Your task to perform on an android device: change timer sound Image 0: 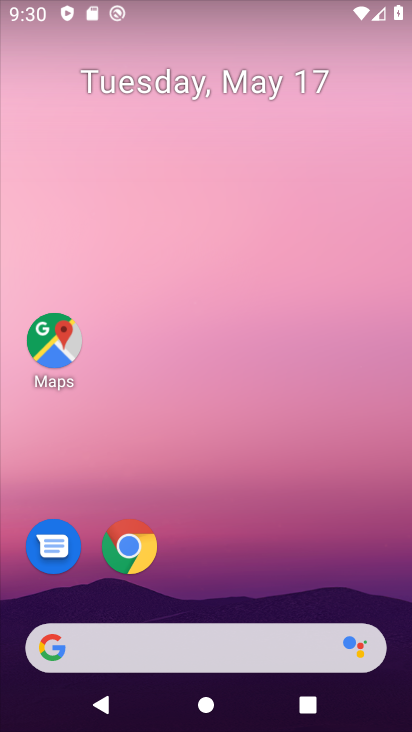
Step 0: drag from (298, 303) to (284, 106)
Your task to perform on an android device: change timer sound Image 1: 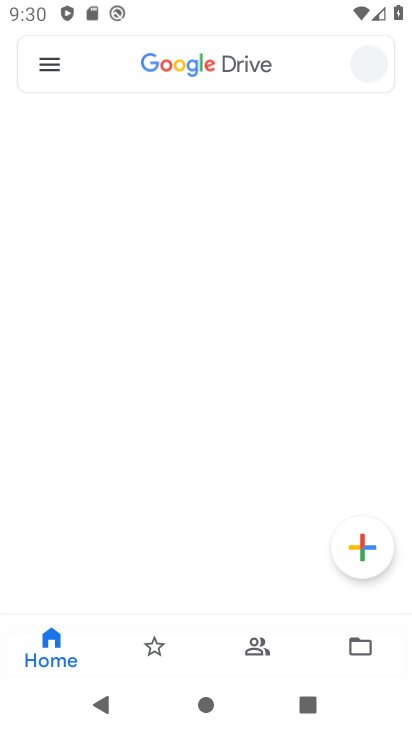
Step 1: drag from (267, 170) to (273, 111)
Your task to perform on an android device: change timer sound Image 2: 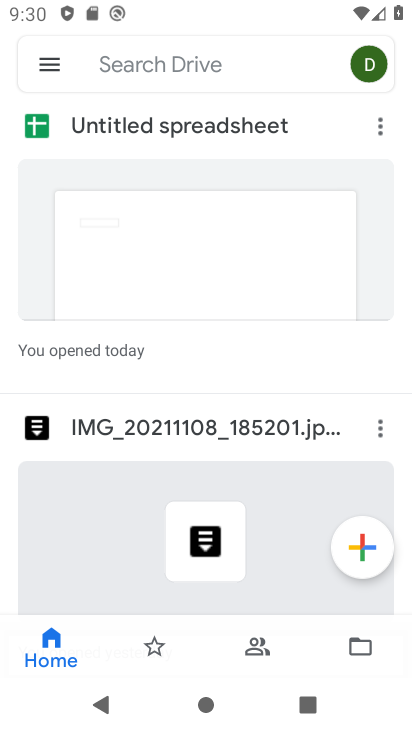
Step 2: press home button
Your task to perform on an android device: change timer sound Image 3: 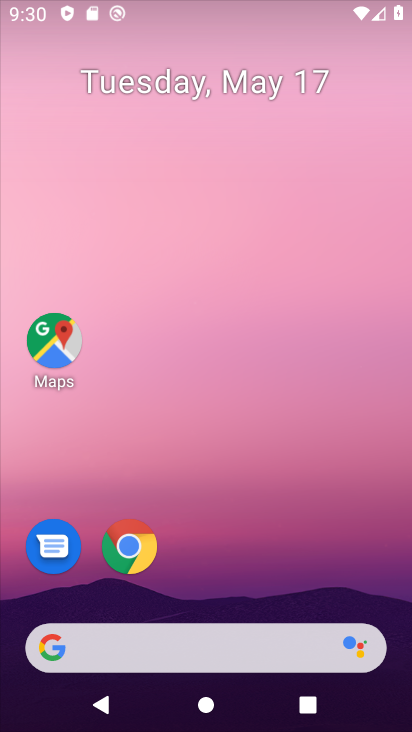
Step 3: drag from (254, 461) to (259, 240)
Your task to perform on an android device: change timer sound Image 4: 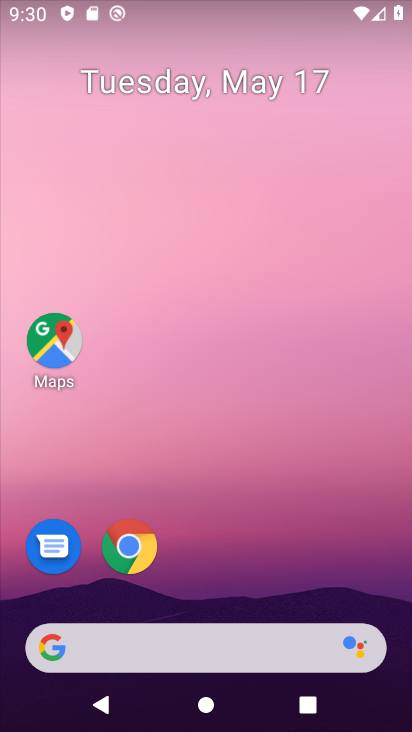
Step 4: drag from (260, 446) to (294, 208)
Your task to perform on an android device: change timer sound Image 5: 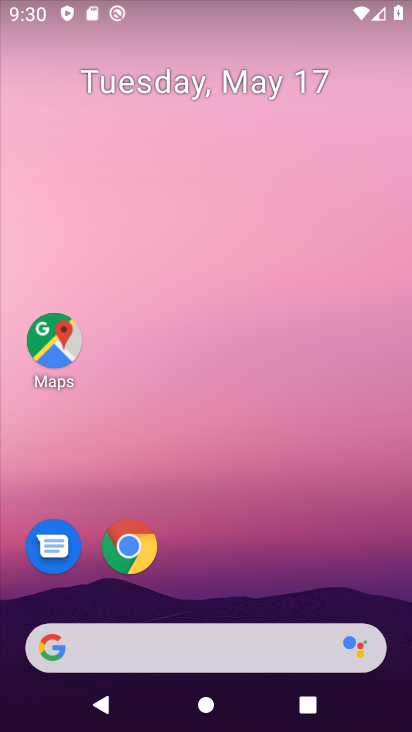
Step 5: drag from (262, 362) to (342, 86)
Your task to perform on an android device: change timer sound Image 6: 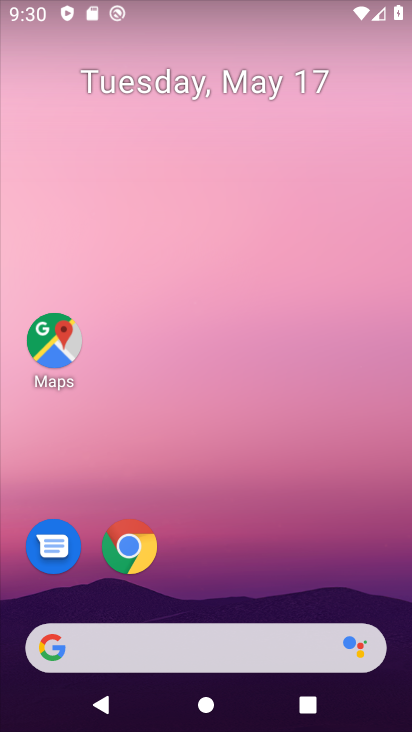
Step 6: drag from (273, 461) to (294, 174)
Your task to perform on an android device: change timer sound Image 7: 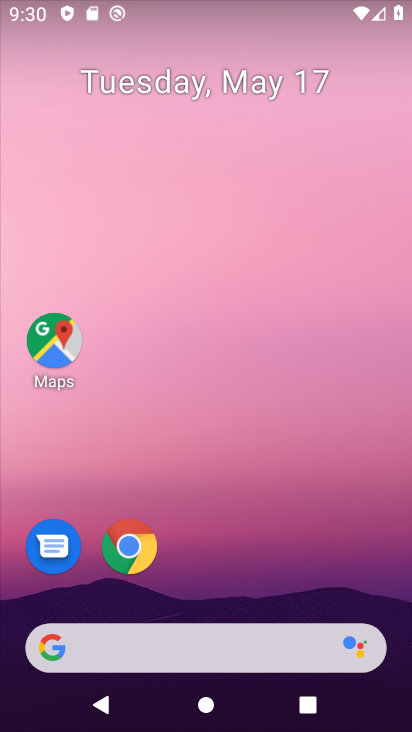
Step 7: drag from (275, 508) to (302, 137)
Your task to perform on an android device: change timer sound Image 8: 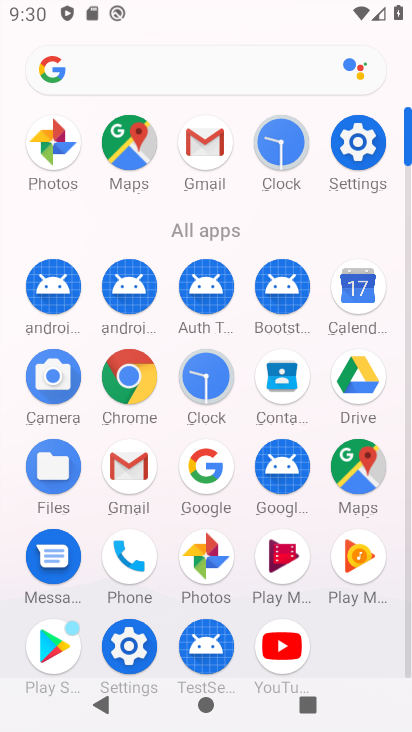
Step 8: click (205, 382)
Your task to perform on an android device: change timer sound Image 9: 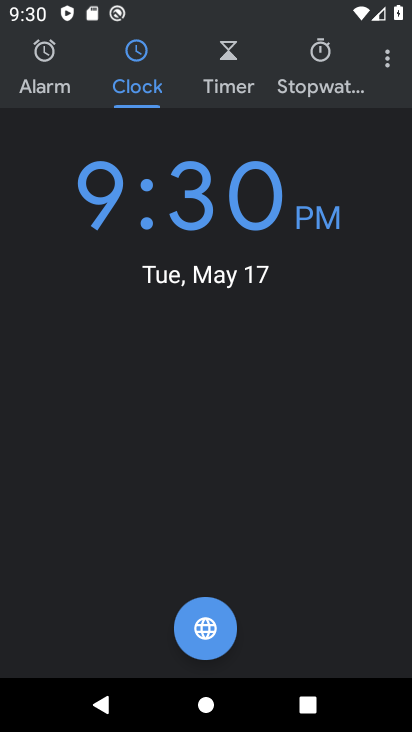
Step 9: click (376, 67)
Your task to perform on an android device: change timer sound Image 10: 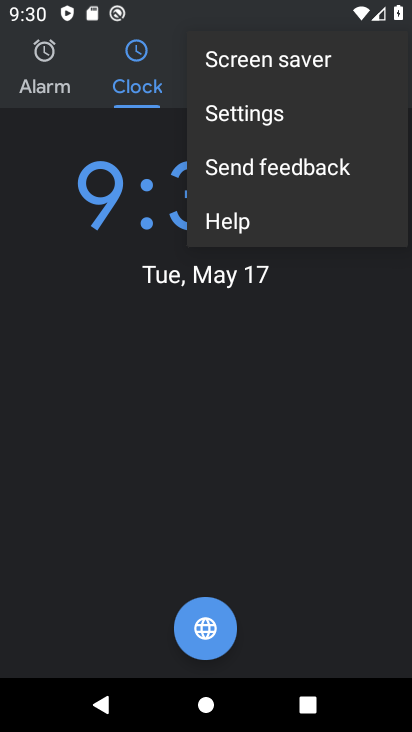
Step 10: click (302, 118)
Your task to perform on an android device: change timer sound Image 11: 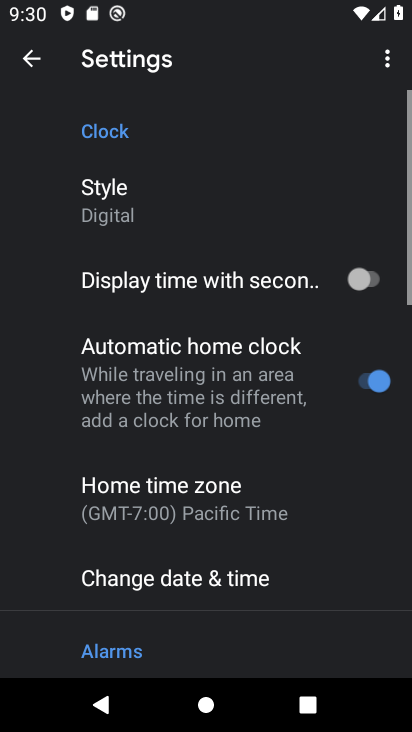
Step 11: drag from (222, 519) to (294, 73)
Your task to perform on an android device: change timer sound Image 12: 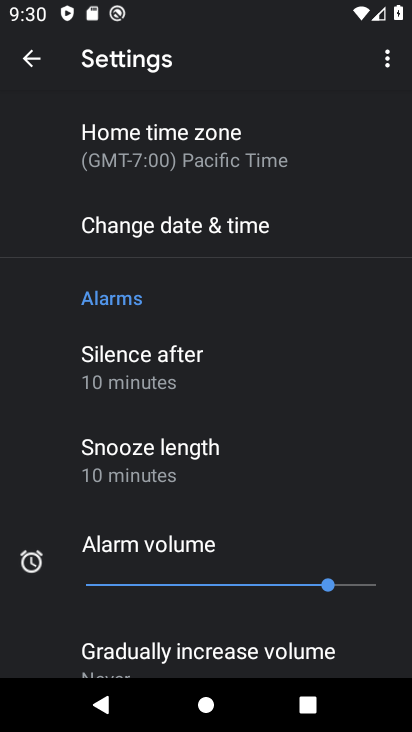
Step 12: drag from (217, 533) to (282, 158)
Your task to perform on an android device: change timer sound Image 13: 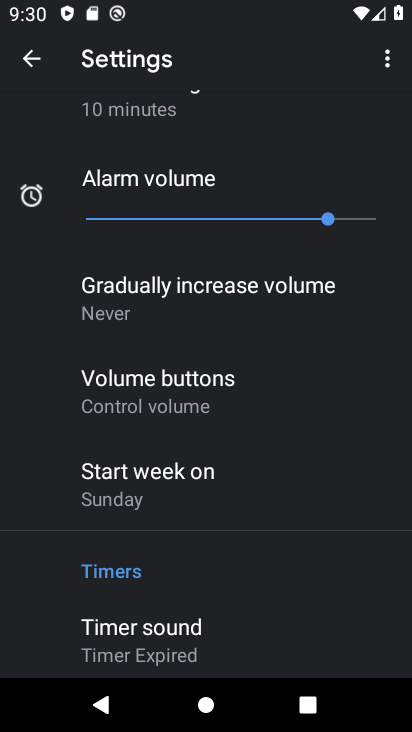
Step 13: drag from (183, 599) to (235, 414)
Your task to perform on an android device: change timer sound Image 14: 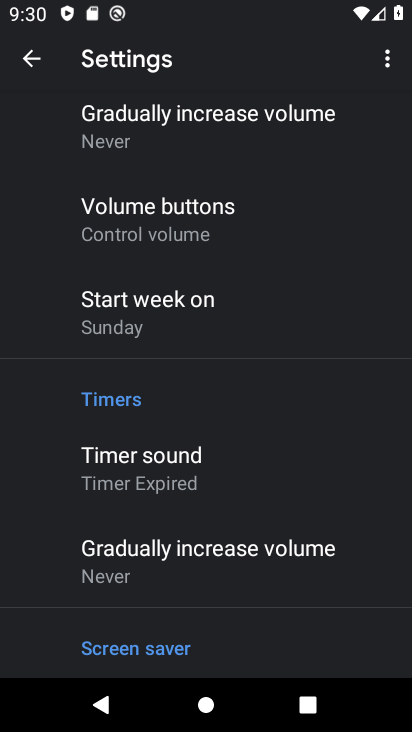
Step 14: click (145, 476)
Your task to perform on an android device: change timer sound Image 15: 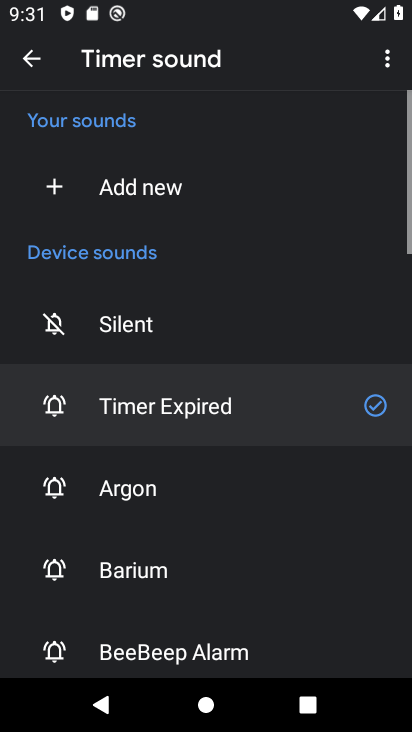
Step 15: drag from (177, 569) to (243, 291)
Your task to perform on an android device: change timer sound Image 16: 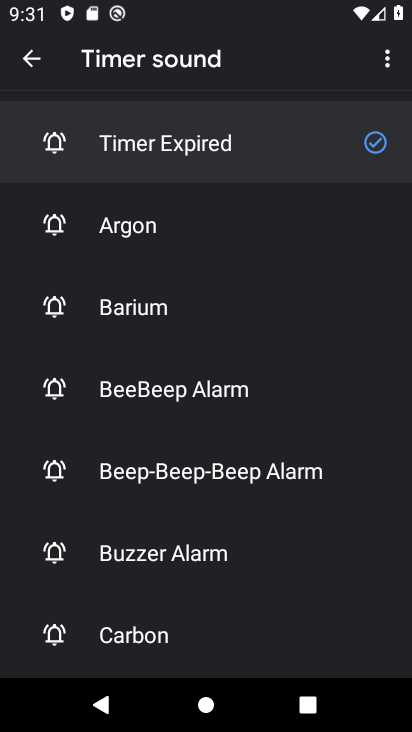
Step 16: click (177, 549)
Your task to perform on an android device: change timer sound Image 17: 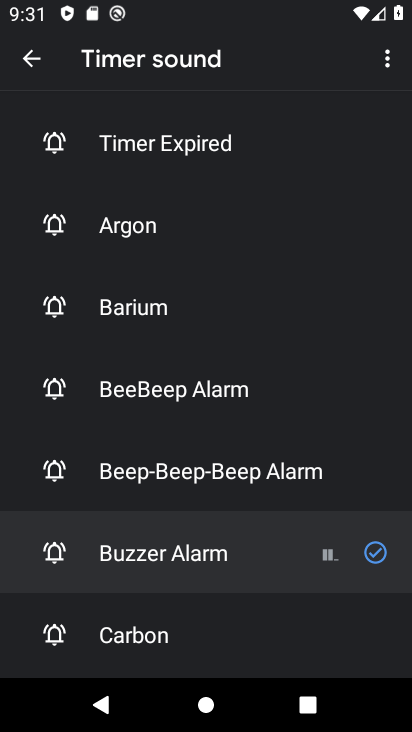
Step 17: task complete